Your task to perform on an android device: open chrome privacy settings Image 0: 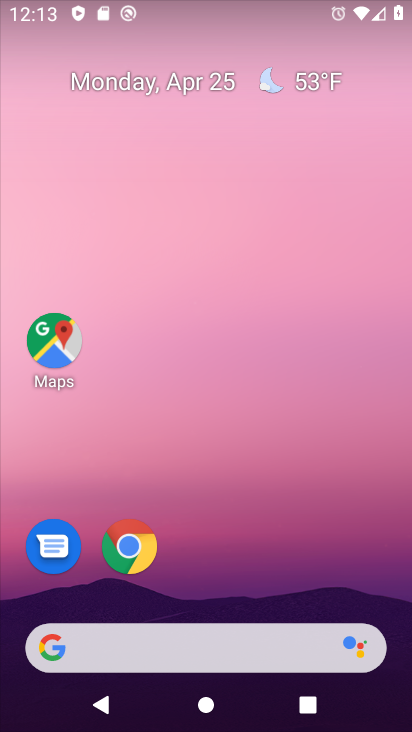
Step 0: click (146, 542)
Your task to perform on an android device: open chrome privacy settings Image 1: 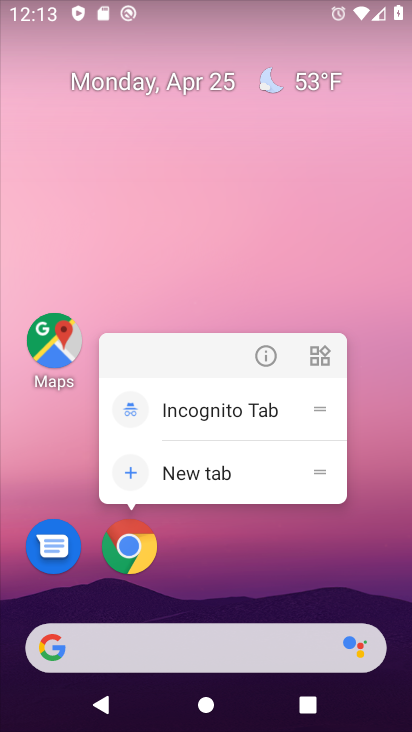
Step 1: click (143, 550)
Your task to perform on an android device: open chrome privacy settings Image 2: 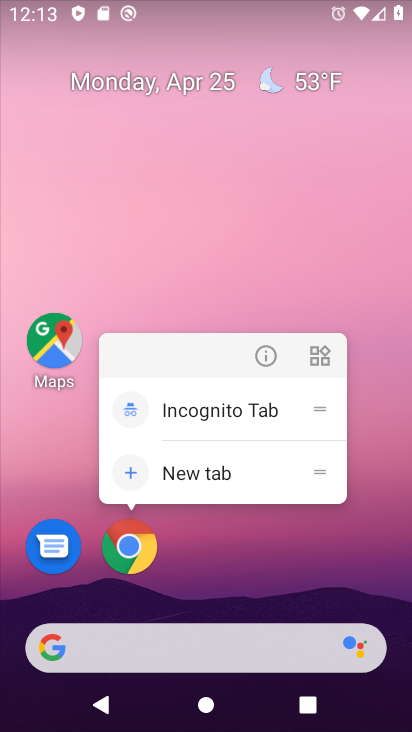
Step 2: click (143, 550)
Your task to perform on an android device: open chrome privacy settings Image 3: 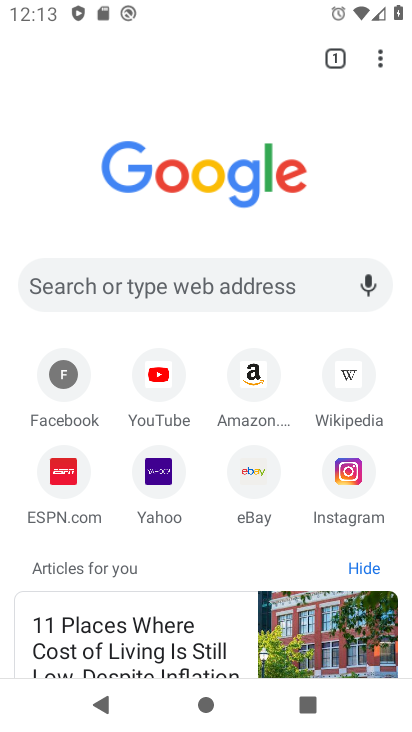
Step 3: click (374, 56)
Your task to perform on an android device: open chrome privacy settings Image 4: 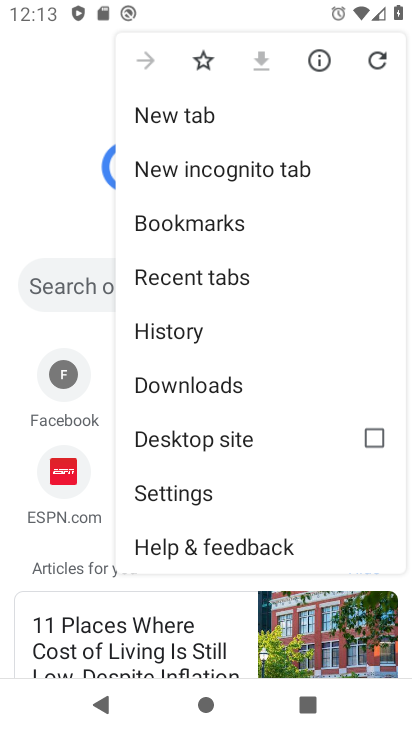
Step 4: click (165, 488)
Your task to perform on an android device: open chrome privacy settings Image 5: 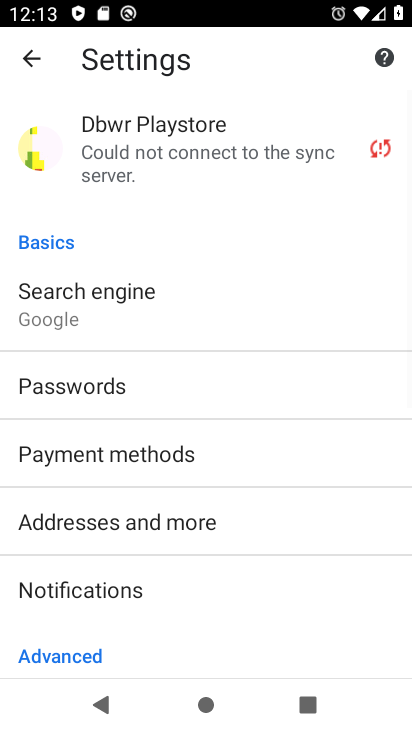
Step 5: drag from (130, 606) to (185, 342)
Your task to perform on an android device: open chrome privacy settings Image 6: 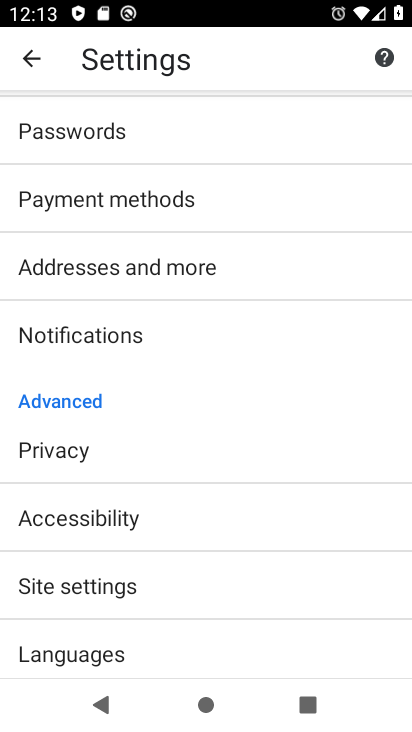
Step 6: click (110, 451)
Your task to perform on an android device: open chrome privacy settings Image 7: 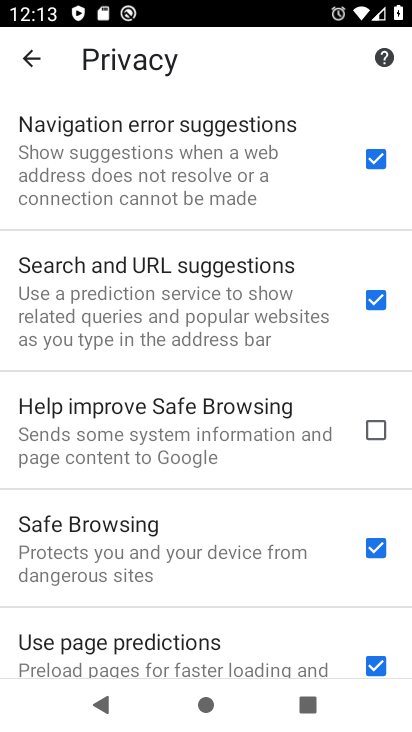
Step 7: task complete